Your task to perform on an android device: empty trash in the gmail app Image 0: 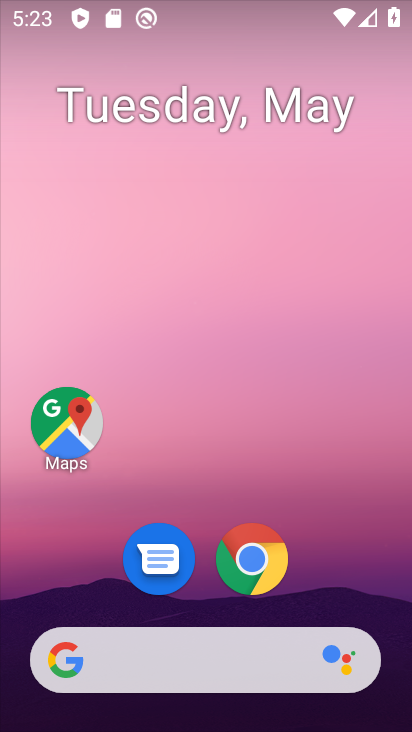
Step 0: drag from (290, 588) to (322, 186)
Your task to perform on an android device: empty trash in the gmail app Image 1: 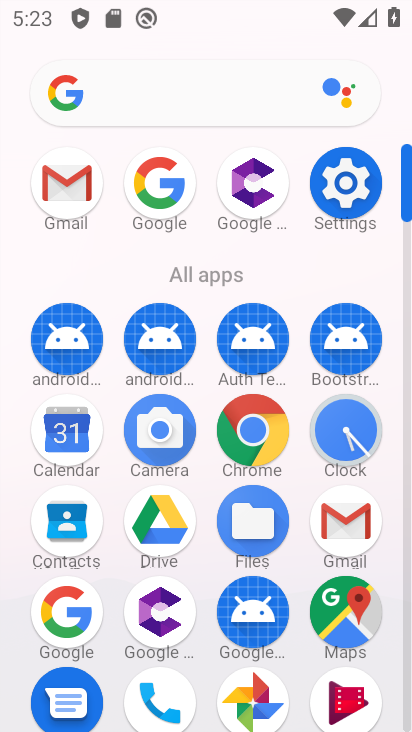
Step 1: click (57, 196)
Your task to perform on an android device: empty trash in the gmail app Image 2: 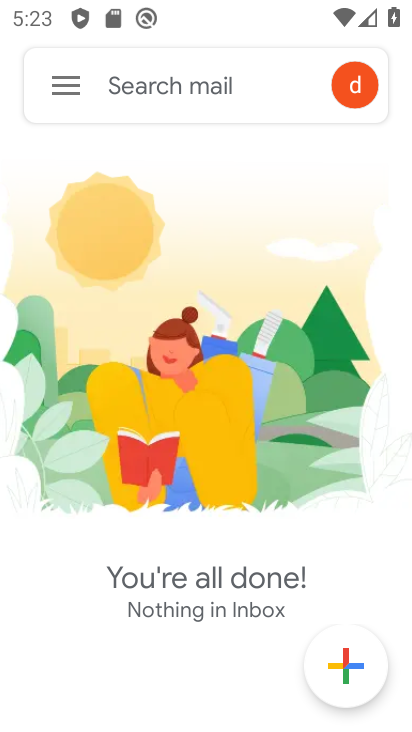
Step 2: click (67, 88)
Your task to perform on an android device: empty trash in the gmail app Image 3: 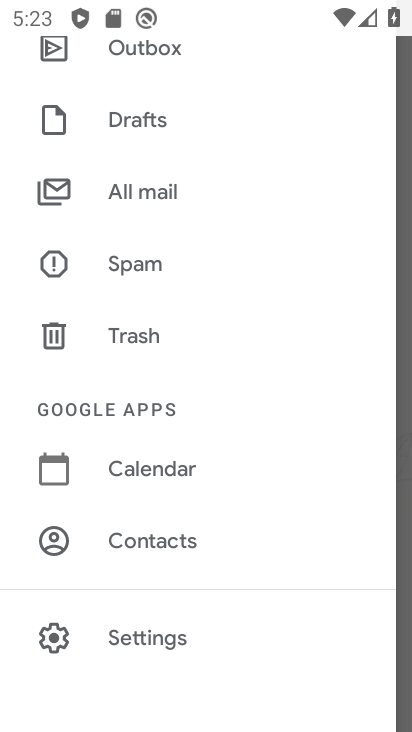
Step 3: click (150, 340)
Your task to perform on an android device: empty trash in the gmail app Image 4: 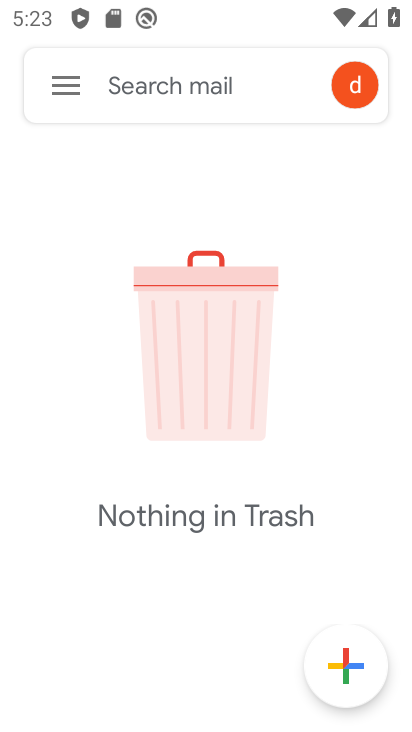
Step 4: task complete